Your task to perform on an android device: Go to privacy settings Image 0: 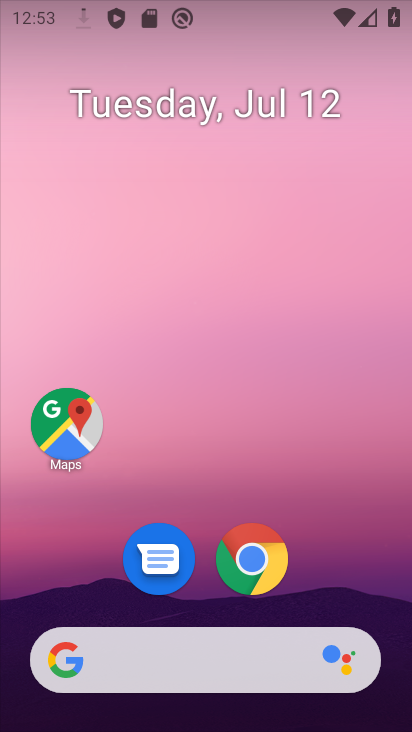
Step 0: press home button
Your task to perform on an android device: Go to privacy settings Image 1: 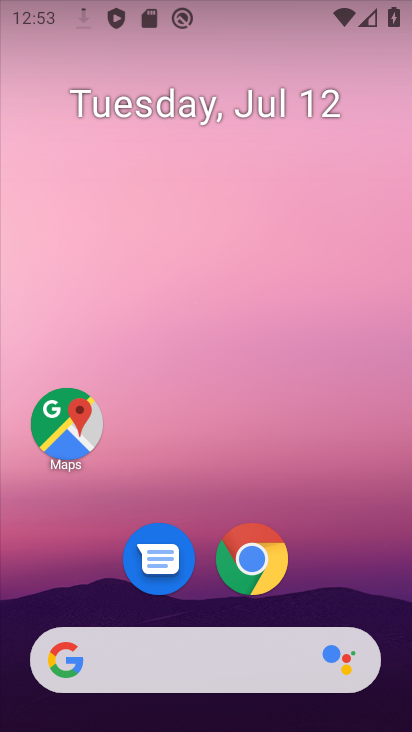
Step 1: drag from (347, 567) to (347, 102)
Your task to perform on an android device: Go to privacy settings Image 2: 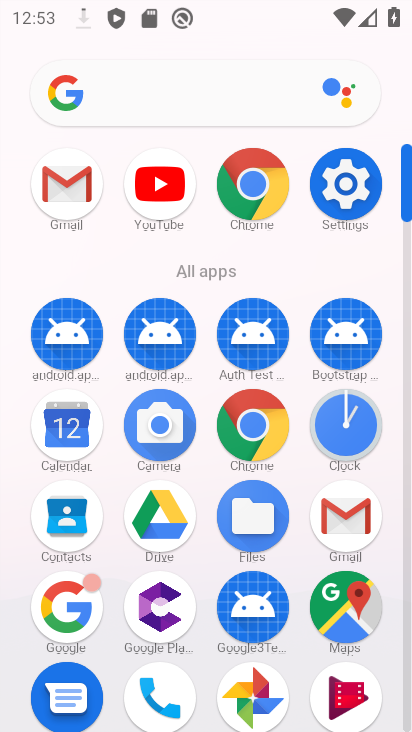
Step 2: click (343, 190)
Your task to perform on an android device: Go to privacy settings Image 3: 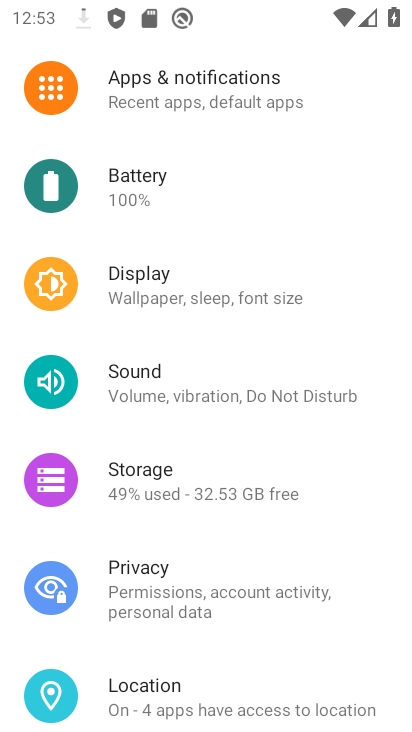
Step 3: drag from (363, 203) to (362, 368)
Your task to perform on an android device: Go to privacy settings Image 4: 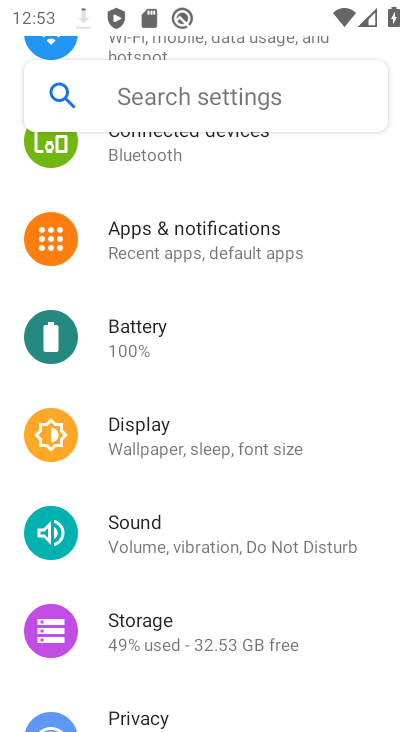
Step 4: drag from (355, 194) to (356, 357)
Your task to perform on an android device: Go to privacy settings Image 5: 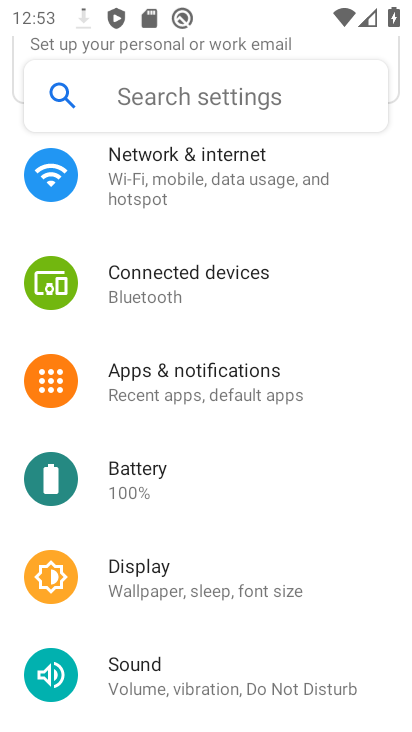
Step 5: drag from (359, 189) to (359, 358)
Your task to perform on an android device: Go to privacy settings Image 6: 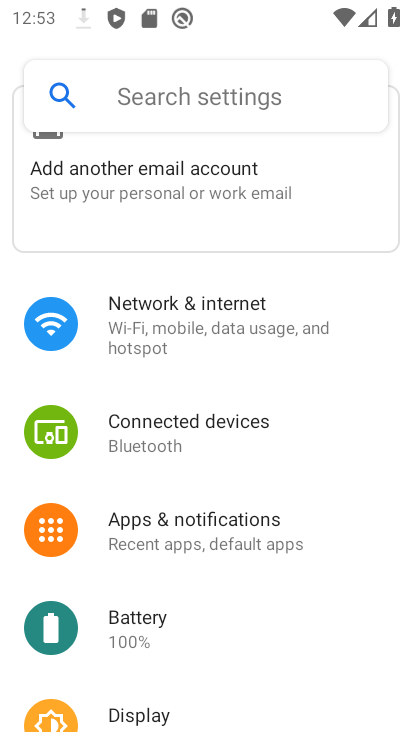
Step 6: drag from (339, 482) to (342, 375)
Your task to perform on an android device: Go to privacy settings Image 7: 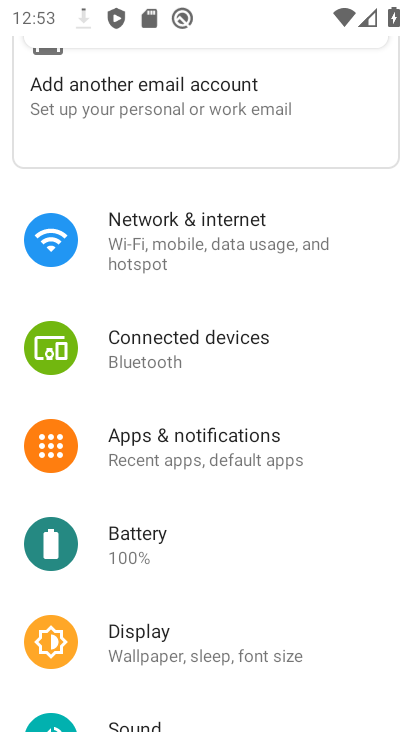
Step 7: drag from (337, 473) to (337, 301)
Your task to perform on an android device: Go to privacy settings Image 8: 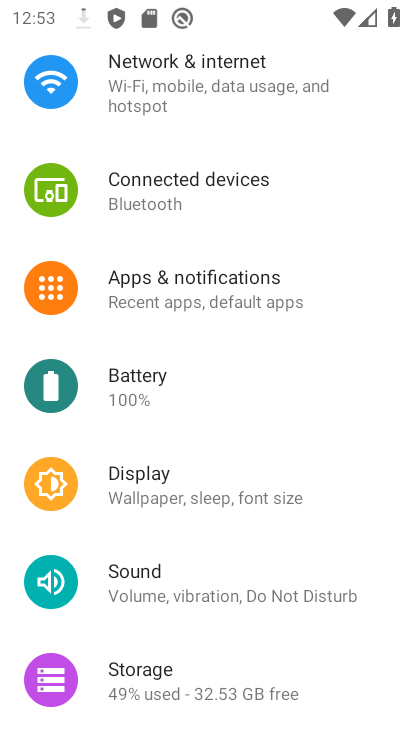
Step 8: drag from (335, 440) to (335, 333)
Your task to perform on an android device: Go to privacy settings Image 9: 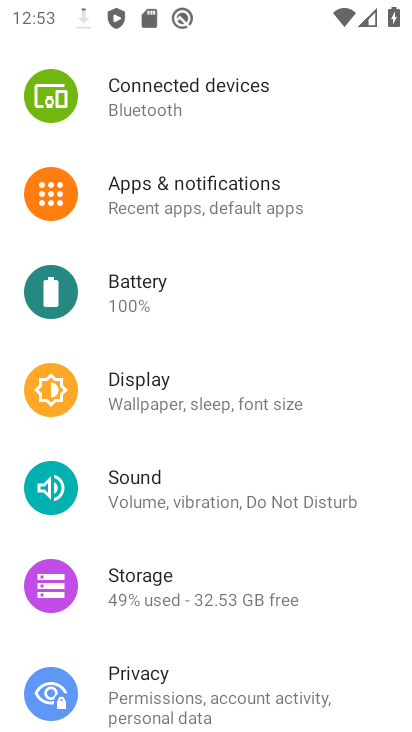
Step 9: drag from (330, 523) to (334, 379)
Your task to perform on an android device: Go to privacy settings Image 10: 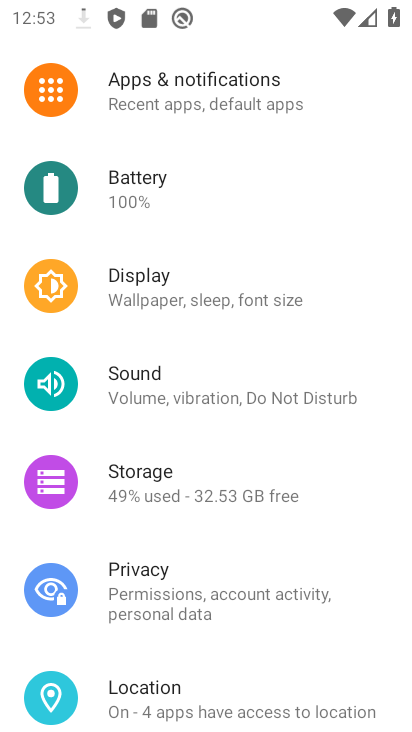
Step 10: drag from (332, 492) to (332, 366)
Your task to perform on an android device: Go to privacy settings Image 11: 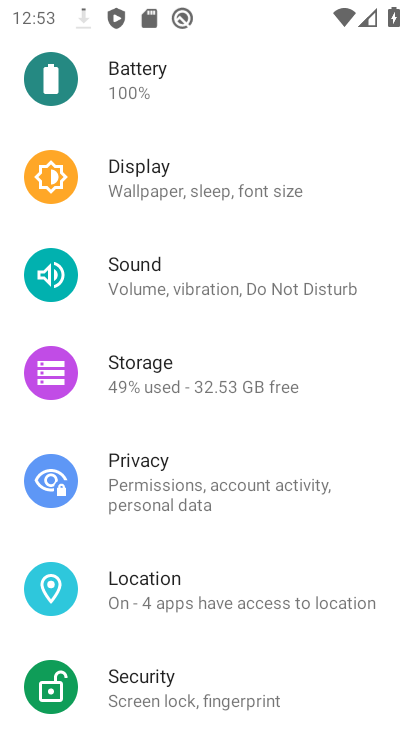
Step 11: drag from (348, 515) to (348, 385)
Your task to perform on an android device: Go to privacy settings Image 12: 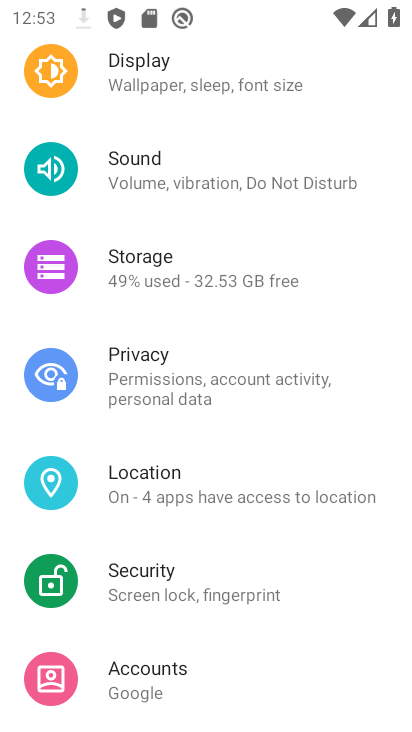
Step 12: click (284, 379)
Your task to perform on an android device: Go to privacy settings Image 13: 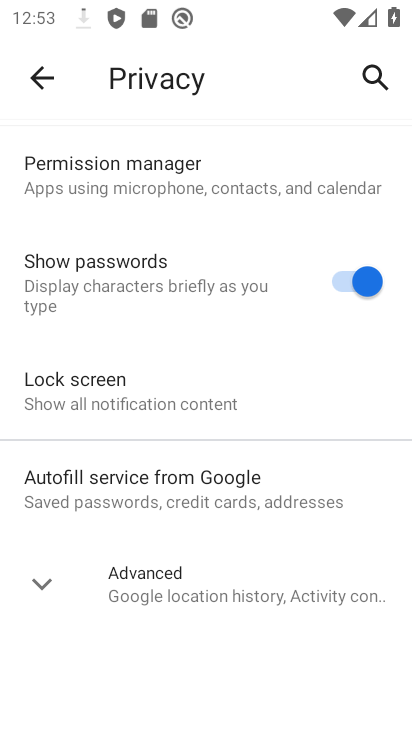
Step 13: click (249, 584)
Your task to perform on an android device: Go to privacy settings Image 14: 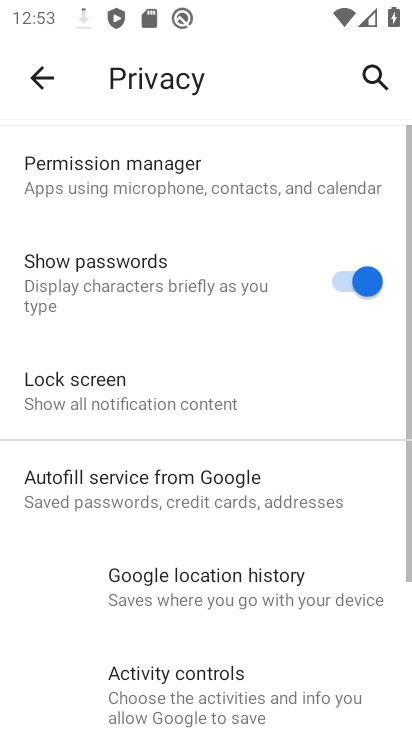
Step 14: task complete